Your task to perform on an android device: delete browsing data in the chrome app Image 0: 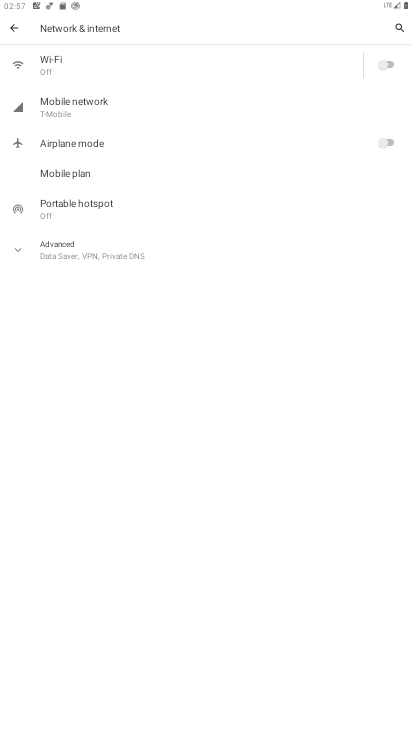
Step 0: press home button
Your task to perform on an android device: delete browsing data in the chrome app Image 1: 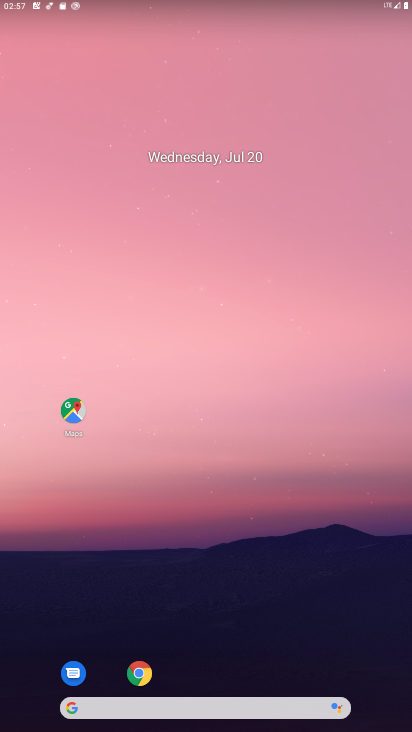
Step 1: drag from (236, 625) to (206, 16)
Your task to perform on an android device: delete browsing data in the chrome app Image 2: 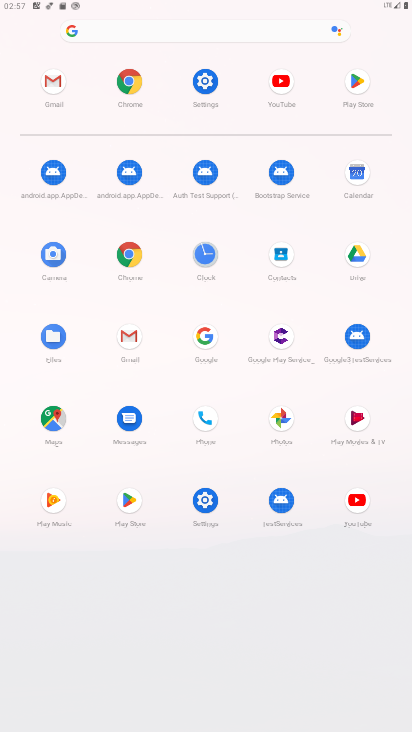
Step 2: click (134, 268)
Your task to perform on an android device: delete browsing data in the chrome app Image 3: 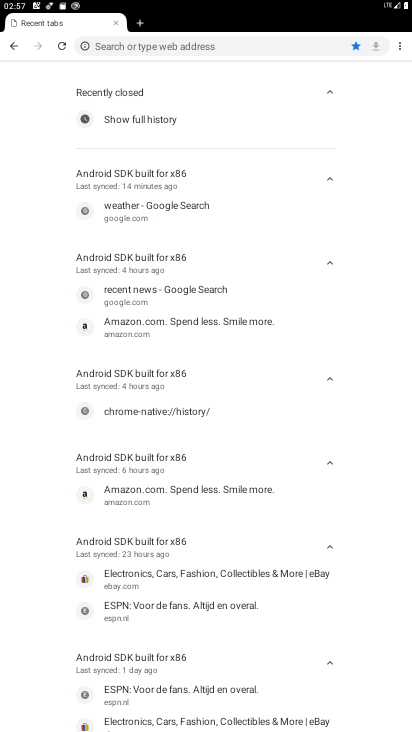
Step 3: click (397, 46)
Your task to perform on an android device: delete browsing data in the chrome app Image 4: 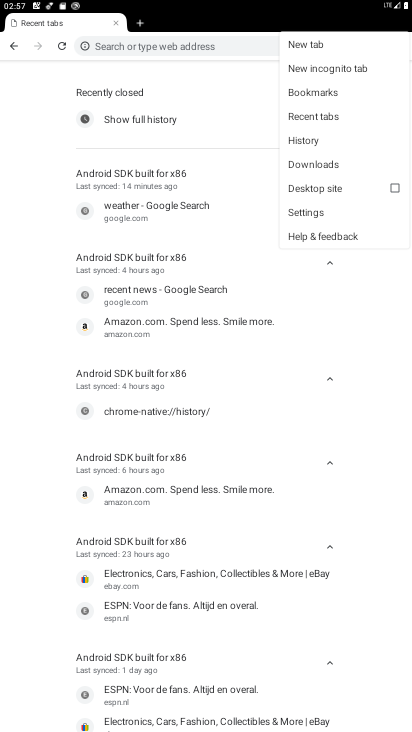
Step 4: click (306, 140)
Your task to perform on an android device: delete browsing data in the chrome app Image 5: 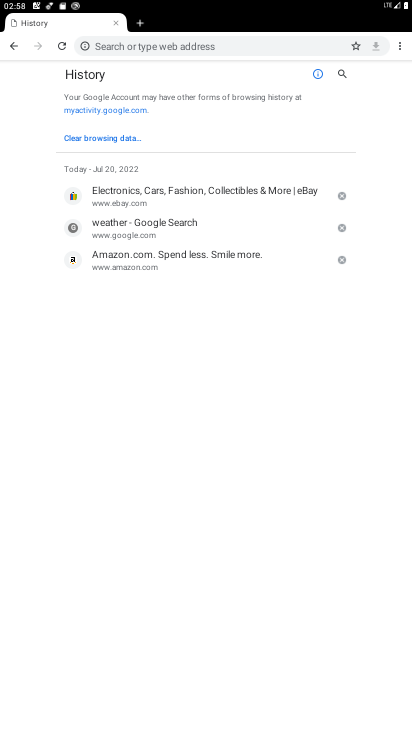
Step 5: click (116, 132)
Your task to perform on an android device: delete browsing data in the chrome app Image 6: 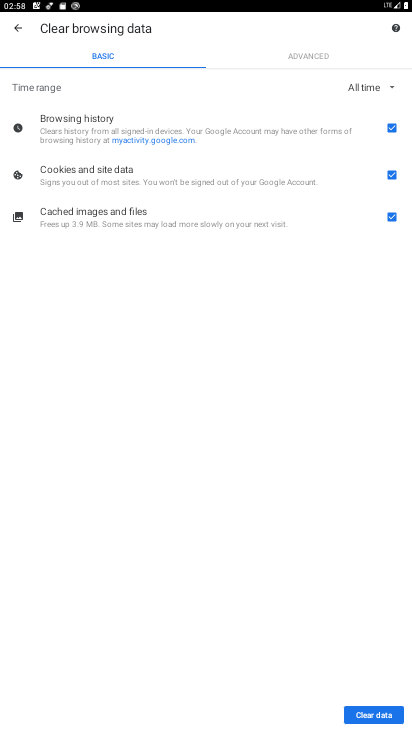
Step 6: click (381, 714)
Your task to perform on an android device: delete browsing data in the chrome app Image 7: 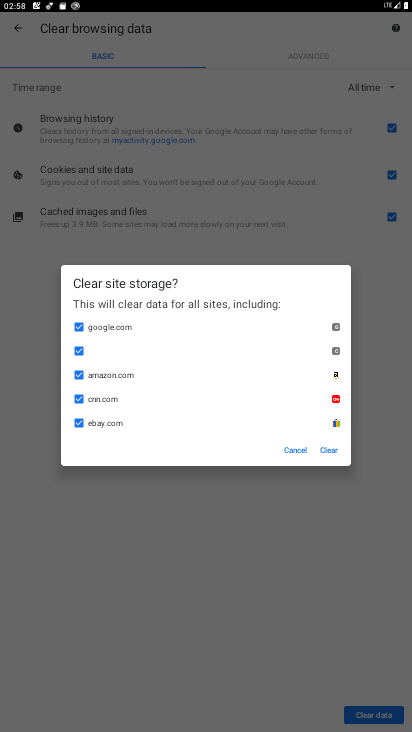
Step 7: click (334, 450)
Your task to perform on an android device: delete browsing data in the chrome app Image 8: 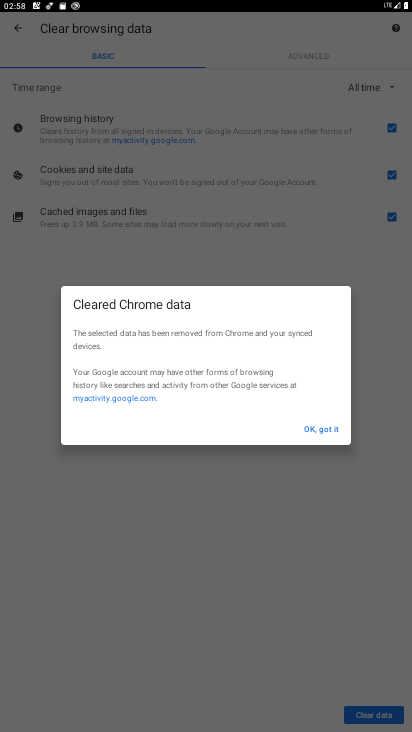
Step 8: click (321, 427)
Your task to perform on an android device: delete browsing data in the chrome app Image 9: 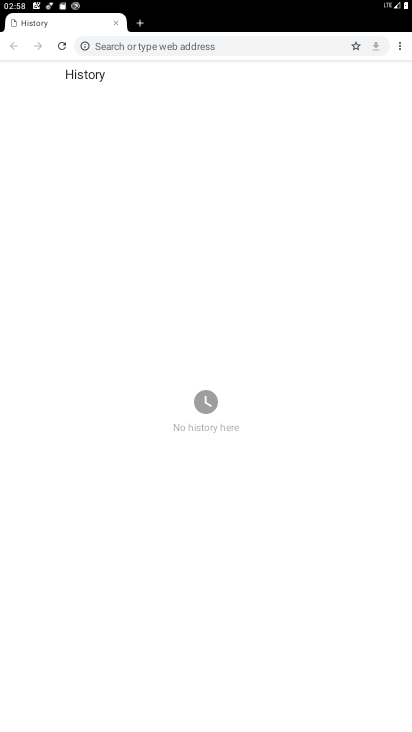
Step 9: task complete